Your task to perform on an android device: turn off sleep mode Image 0: 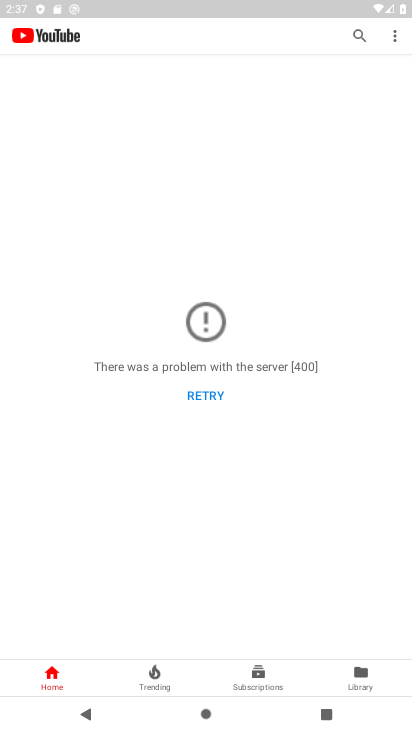
Step 0: press home button
Your task to perform on an android device: turn off sleep mode Image 1: 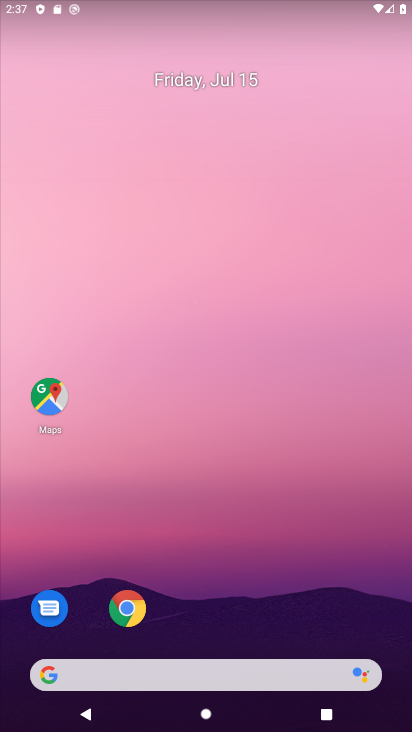
Step 1: click (258, 146)
Your task to perform on an android device: turn off sleep mode Image 2: 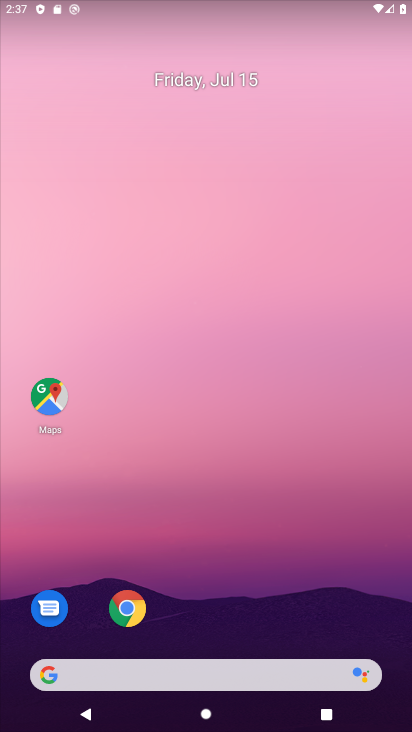
Step 2: drag from (229, 565) to (260, 91)
Your task to perform on an android device: turn off sleep mode Image 3: 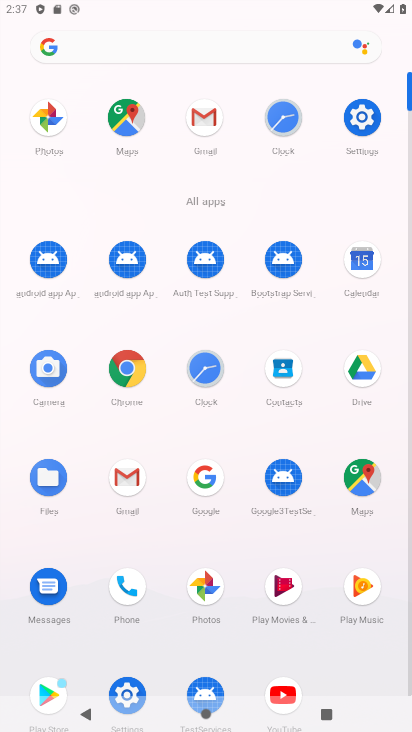
Step 3: click (357, 118)
Your task to perform on an android device: turn off sleep mode Image 4: 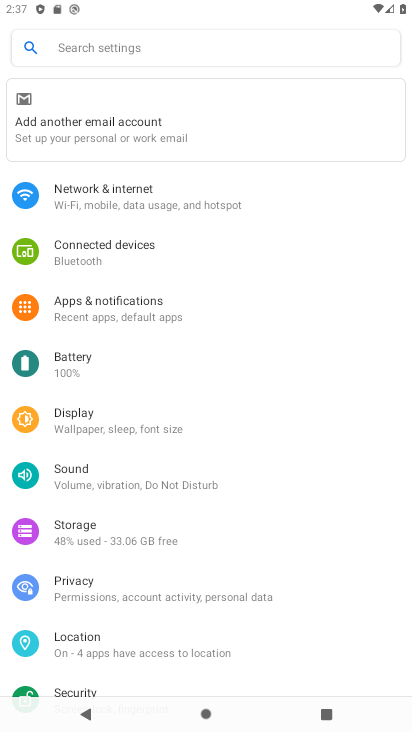
Step 4: task complete